Your task to perform on an android device: change notification settings in the gmail app Image 0: 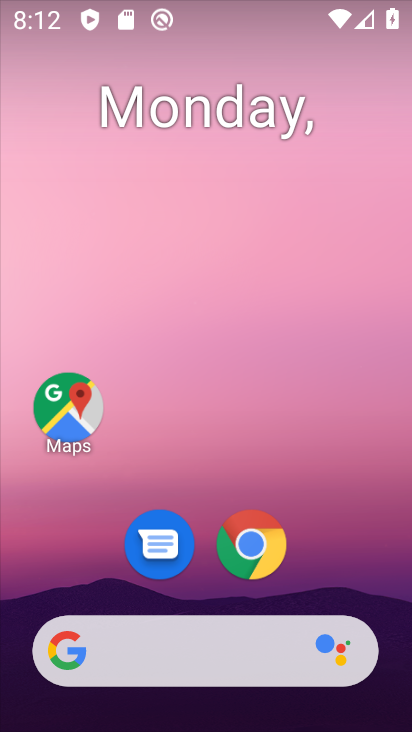
Step 0: drag from (196, 592) to (206, 201)
Your task to perform on an android device: change notification settings in the gmail app Image 1: 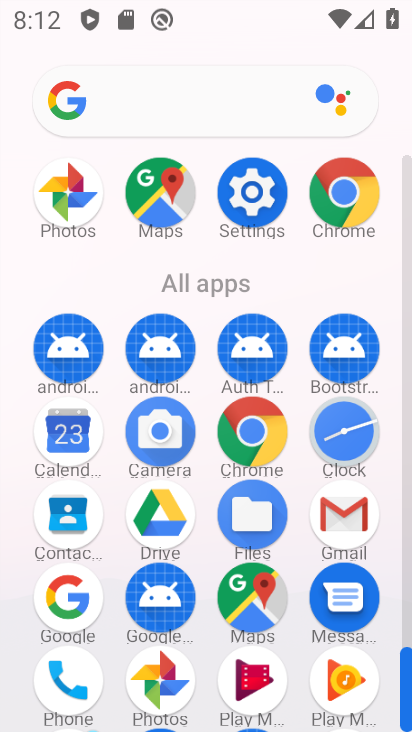
Step 1: click (334, 519)
Your task to perform on an android device: change notification settings in the gmail app Image 2: 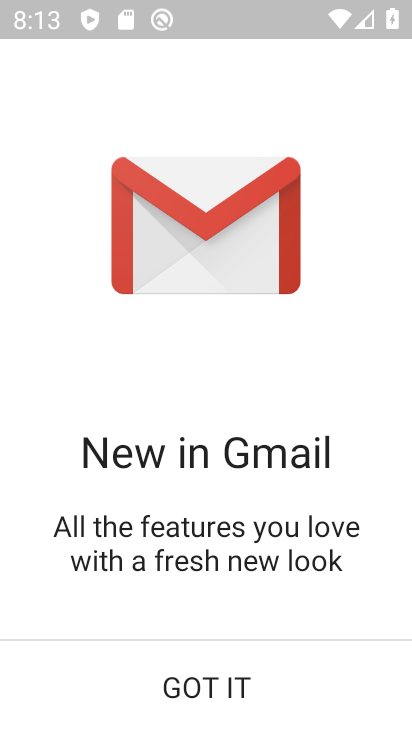
Step 2: click (174, 706)
Your task to perform on an android device: change notification settings in the gmail app Image 3: 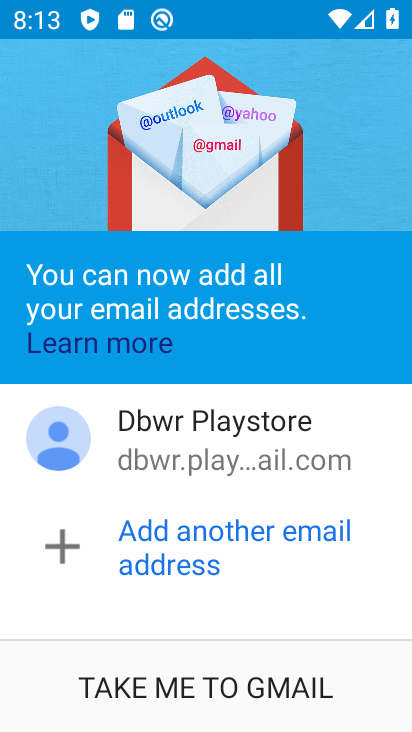
Step 3: click (174, 706)
Your task to perform on an android device: change notification settings in the gmail app Image 4: 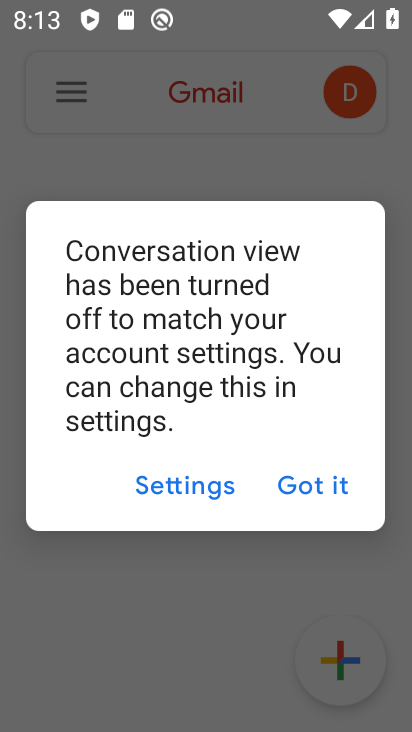
Step 4: click (222, 496)
Your task to perform on an android device: change notification settings in the gmail app Image 5: 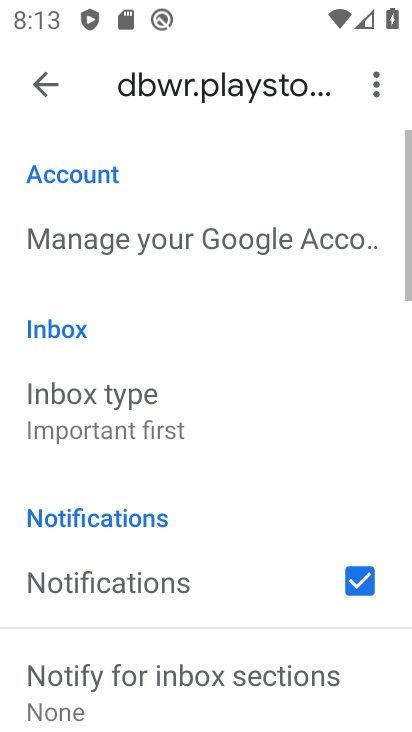
Step 5: drag from (194, 606) to (193, 431)
Your task to perform on an android device: change notification settings in the gmail app Image 6: 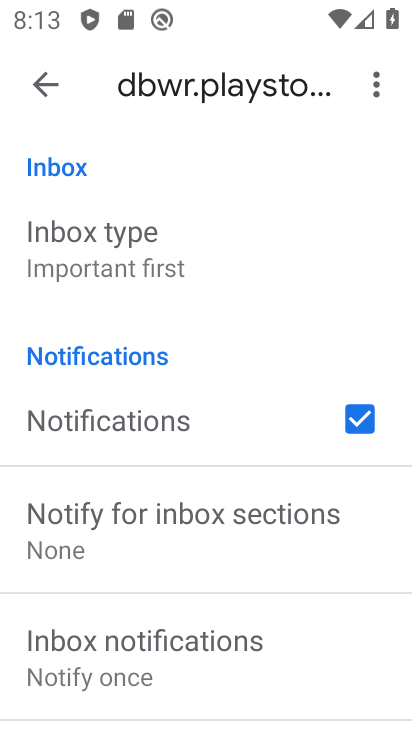
Step 6: click (364, 420)
Your task to perform on an android device: change notification settings in the gmail app Image 7: 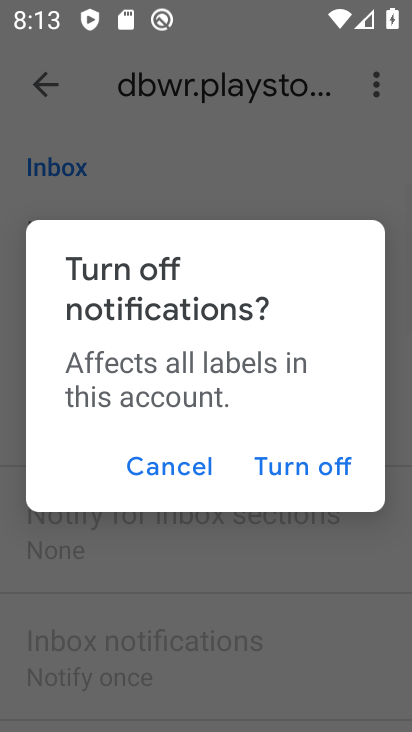
Step 7: click (323, 463)
Your task to perform on an android device: change notification settings in the gmail app Image 8: 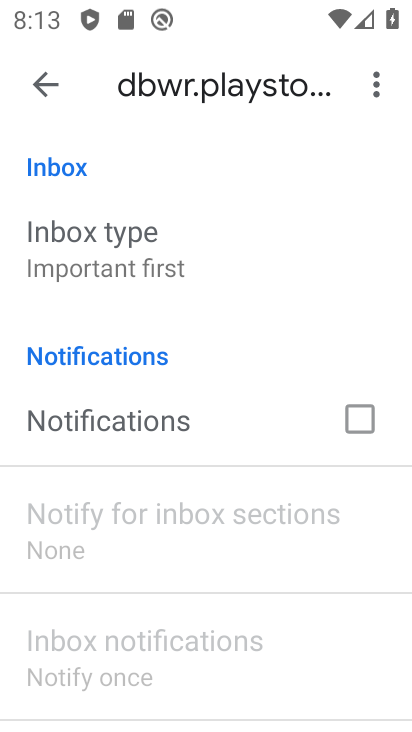
Step 8: task complete